Your task to perform on an android device: Open Chrome and go to settings Image 0: 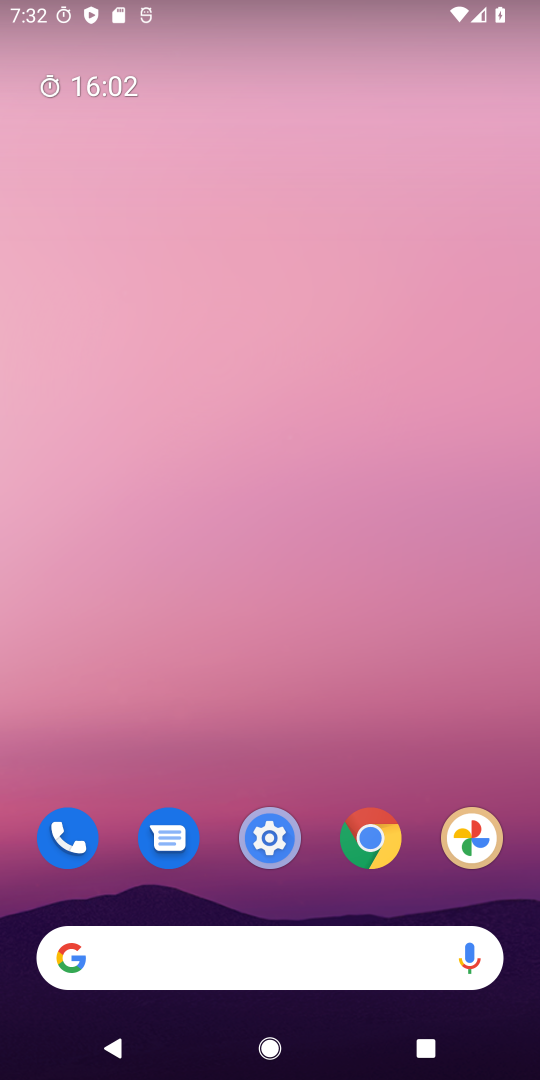
Step 0: drag from (298, 875) to (364, 117)
Your task to perform on an android device: Open Chrome and go to settings Image 1: 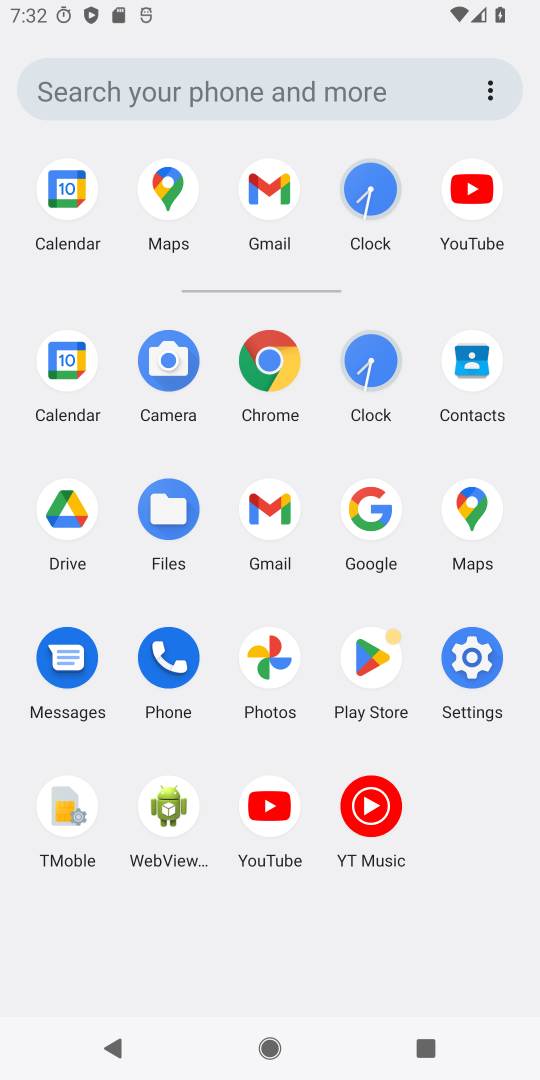
Step 1: click (475, 647)
Your task to perform on an android device: Open Chrome and go to settings Image 2: 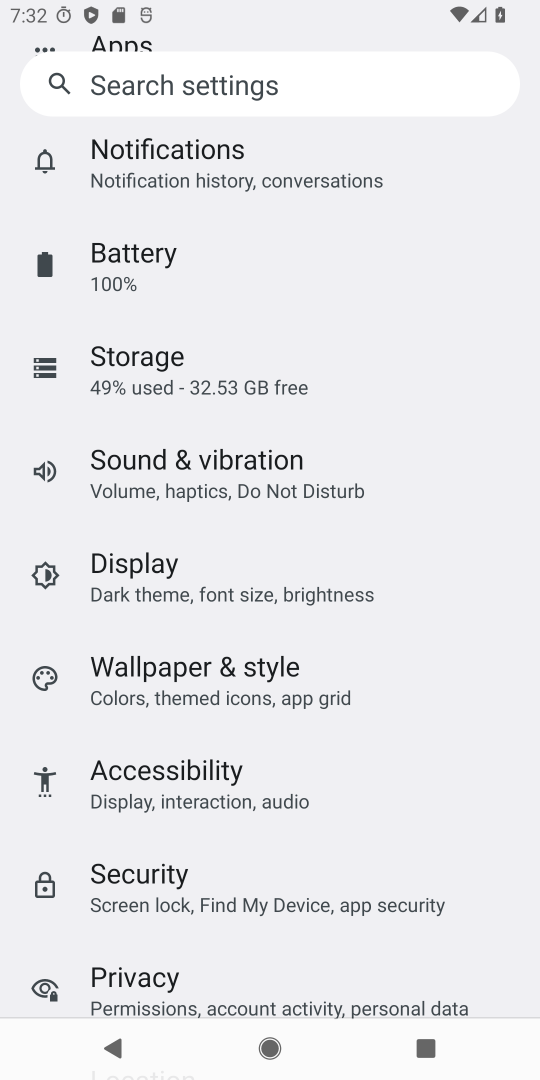
Step 2: drag from (258, 936) to (377, 317)
Your task to perform on an android device: Open Chrome and go to settings Image 3: 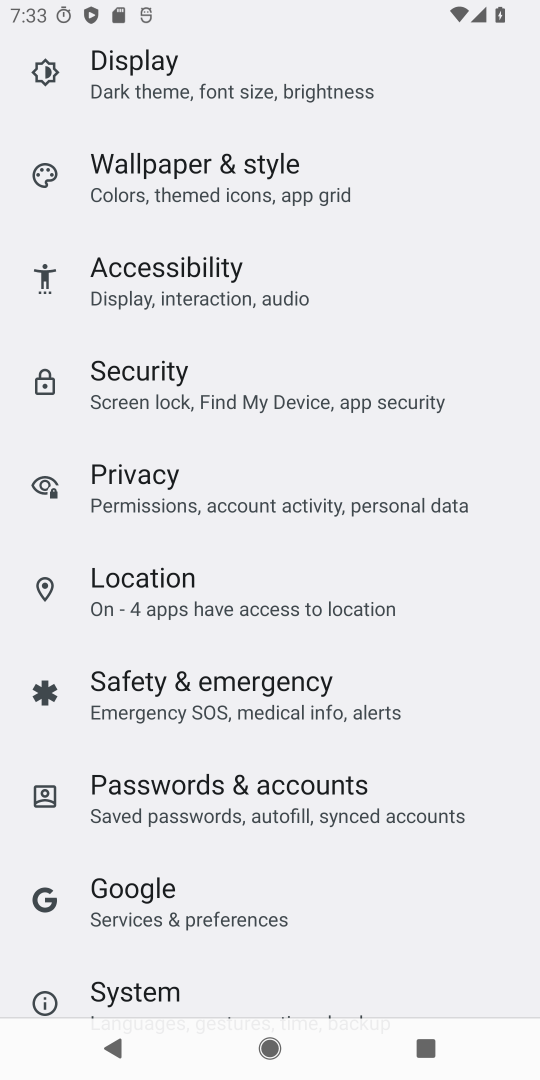
Step 3: press home button
Your task to perform on an android device: Open Chrome and go to settings Image 4: 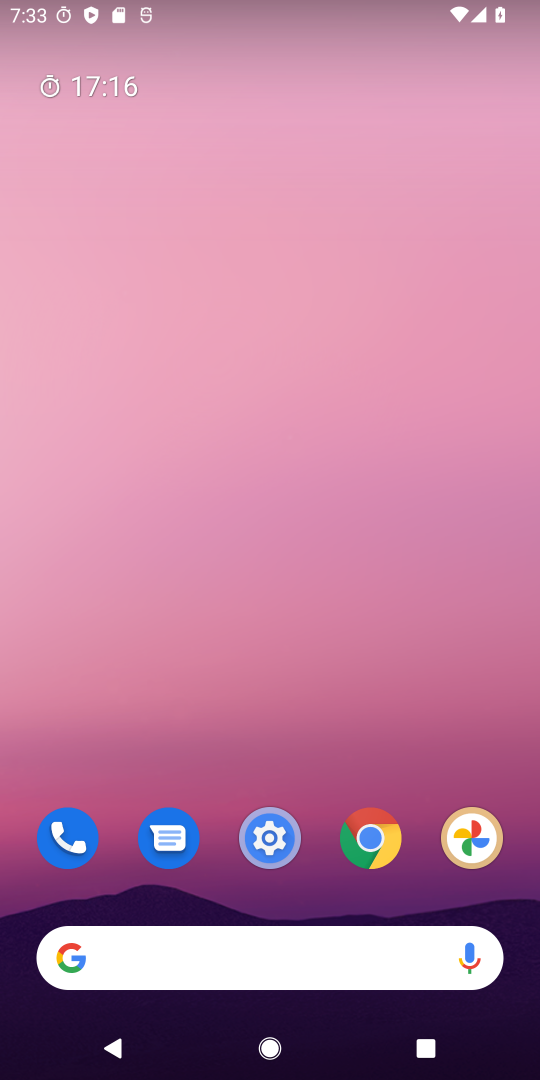
Step 4: drag from (325, 870) to (471, 126)
Your task to perform on an android device: Open Chrome and go to settings Image 5: 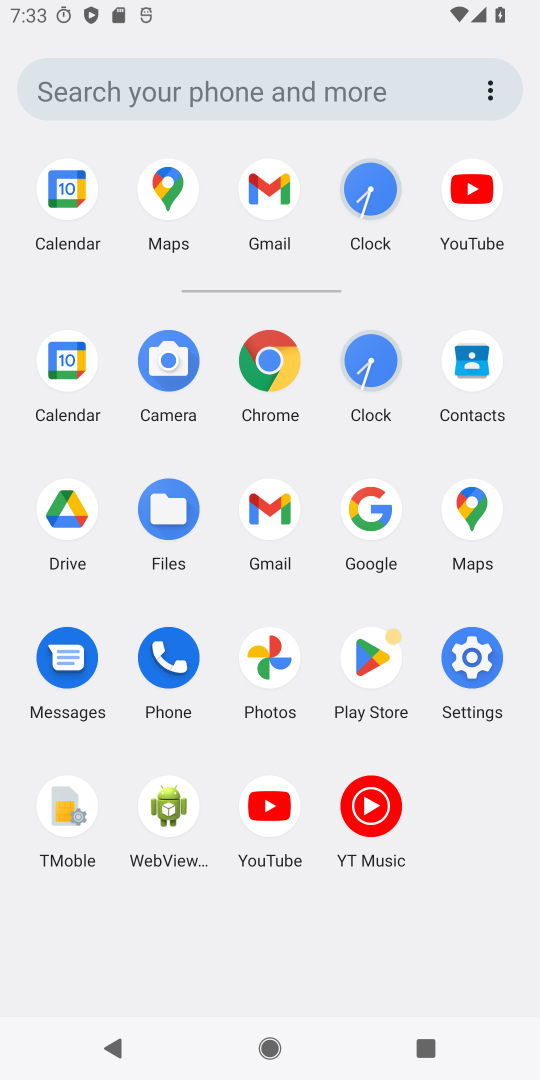
Step 5: click (291, 353)
Your task to perform on an android device: Open Chrome and go to settings Image 6: 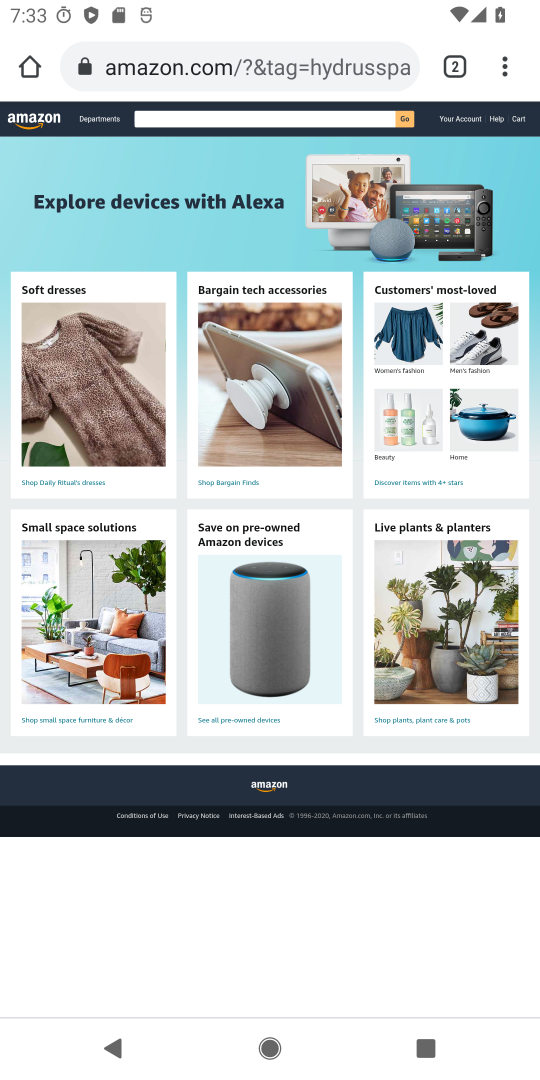
Step 6: click (498, 59)
Your task to perform on an android device: Open Chrome and go to settings Image 7: 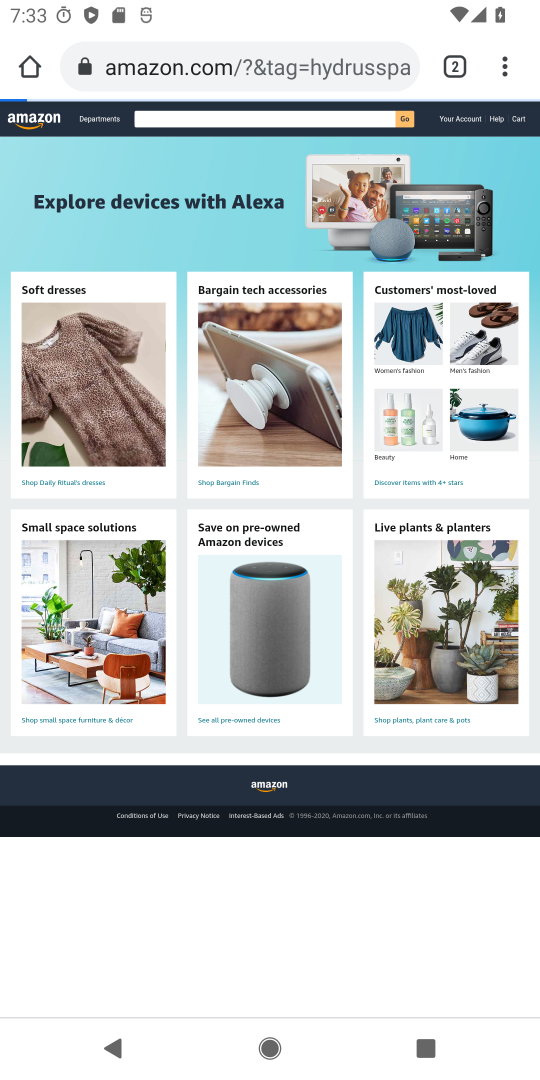
Step 7: click (498, 59)
Your task to perform on an android device: Open Chrome and go to settings Image 8: 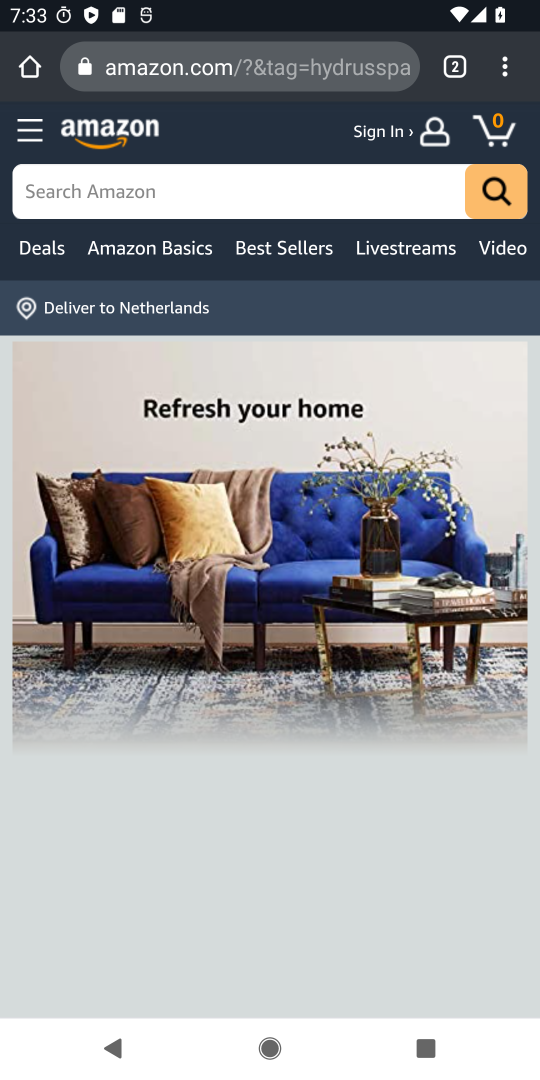
Step 8: task complete